Your task to perform on an android device: allow notifications from all sites in the chrome app Image 0: 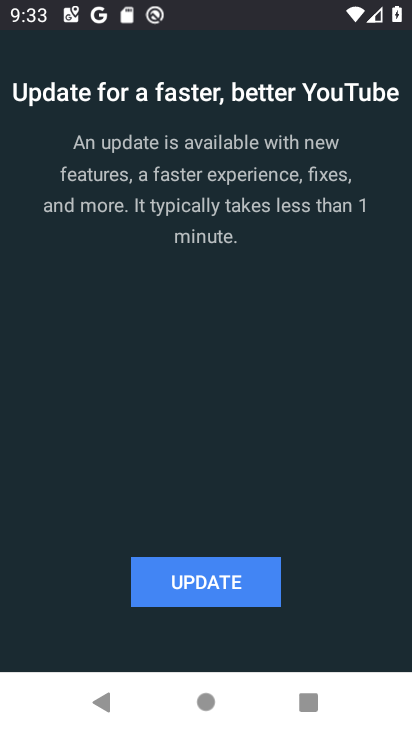
Step 0: press home button
Your task to perform on an android device: allow notifications from all sites in the chrome app Image 1: 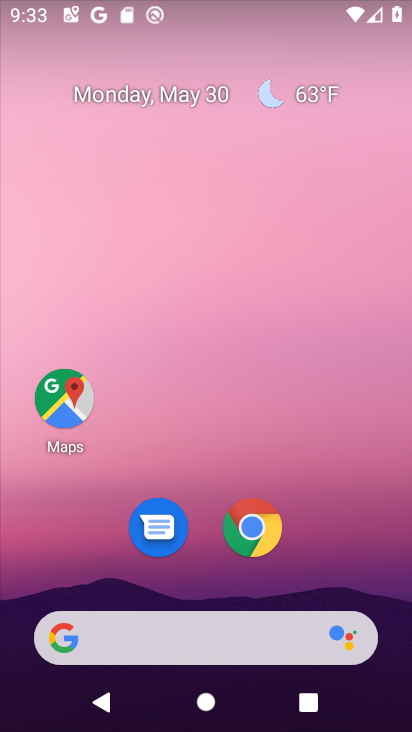
Step 1: click (284, 513)
Your task to perform on an android device: allow notifications from all sites in the chrome app Image 2: 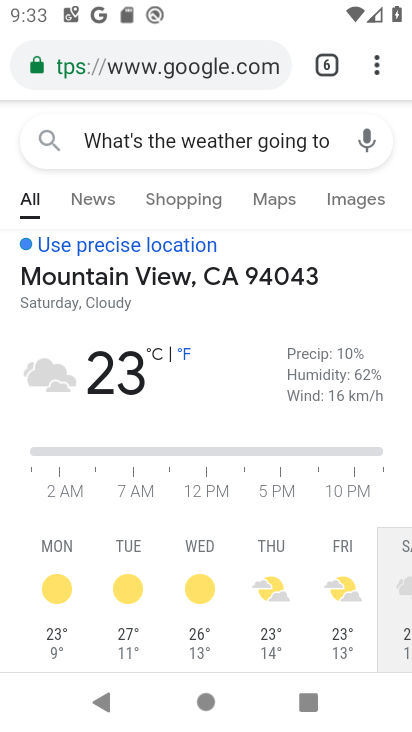
Step 2: click (370, 66)
Your task to perform on an android device: allow notifications from all sites in the chrome app Image 3: 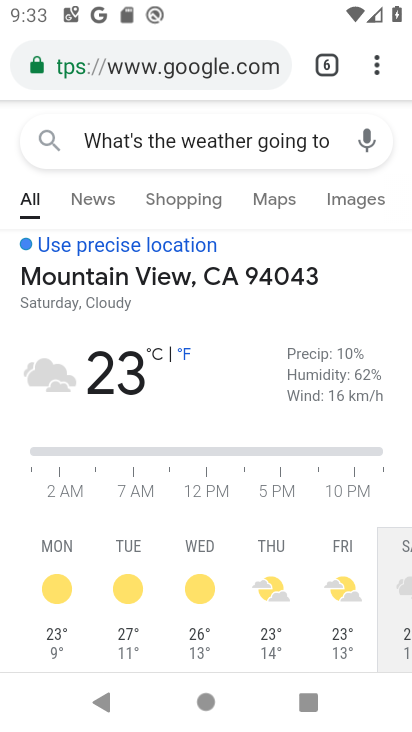
Step 3: click (382, 69)
Your task to perform on an android device: allow notifications from all sites in the chrome app Image 4: 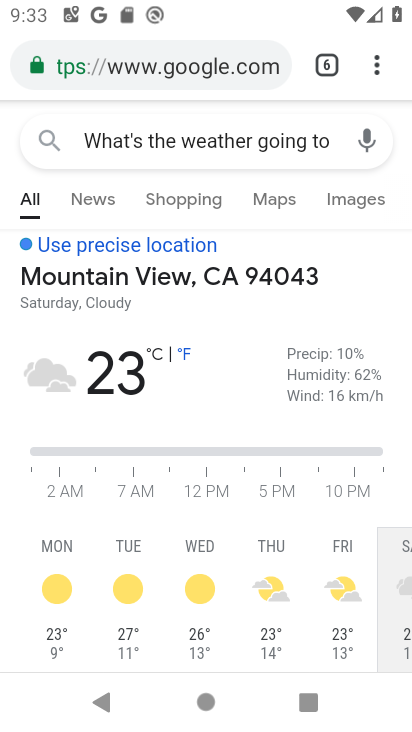
Step 4: click (382, 71)
Your task to perform on an android device: allow notifications from all sites in the chrome app Image 5: 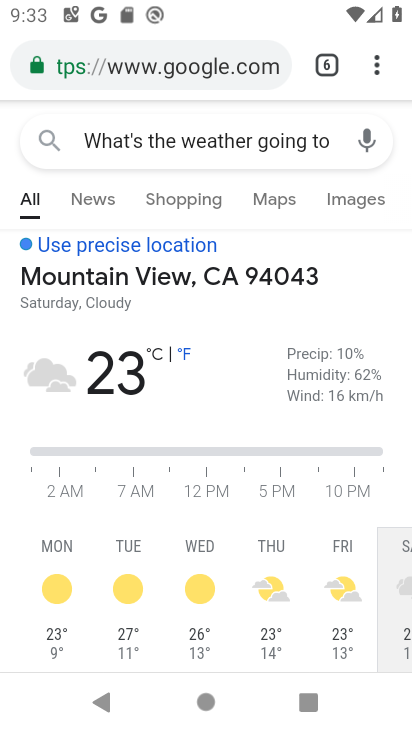
Step 5: click (382, 65)
Your task to perform on an android device: allow notifications from all sites in the chrome app Image 6: 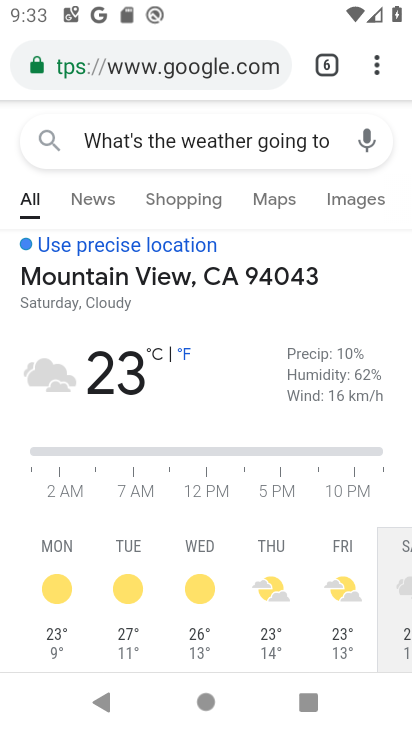
Step 6: click (376, 68)
Your task to perform on an android device: allow notifications from all sites in the chrome app Image 7: 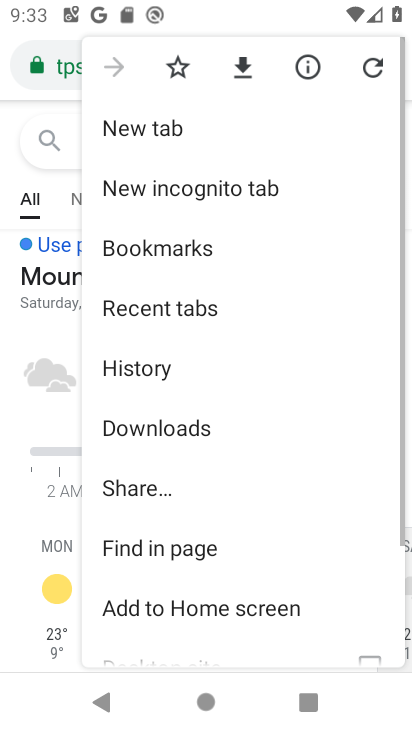
Step 7: drag from (216, 528) to (272, 224)
Your task to perform on an android device: allow notifications from all sites in the chrome app Image 8: 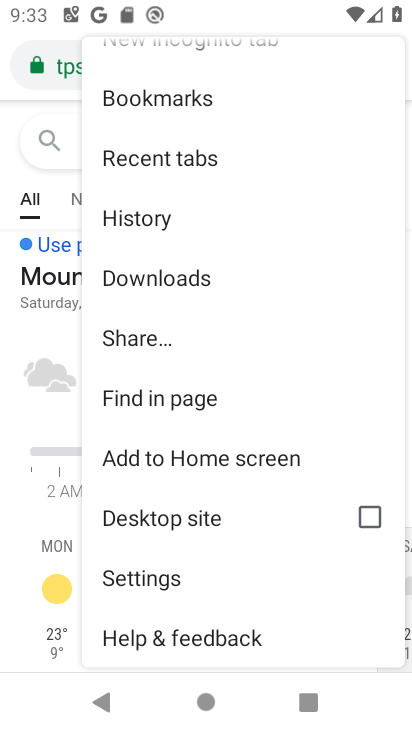
Step 8: click (162, 578)
Your task to perform on an android device: allow notifications from all sites in the chrome app Image 9: 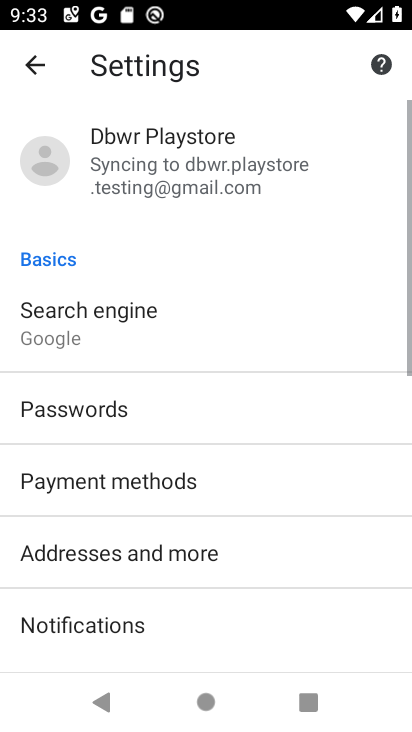
Step 9: drag from (158, 615) to (217, 240)
Your task to perform on an android device: allow notifications from all sites in the chrome app Image 10: 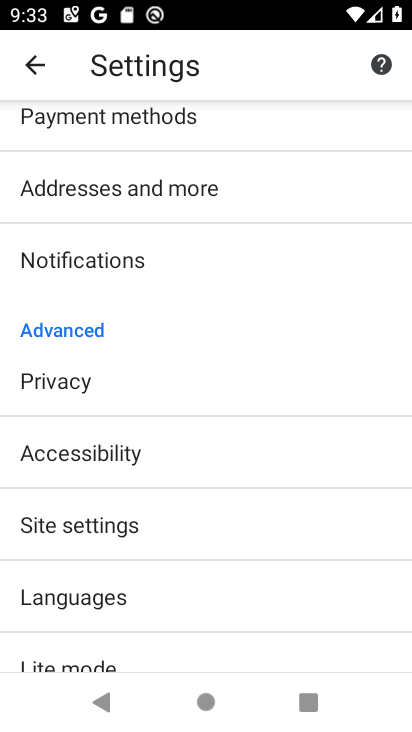
Step 10: click (128, 518)
Your task to perform on an android device: allow notifications from all sites in the chrome app Image 11: 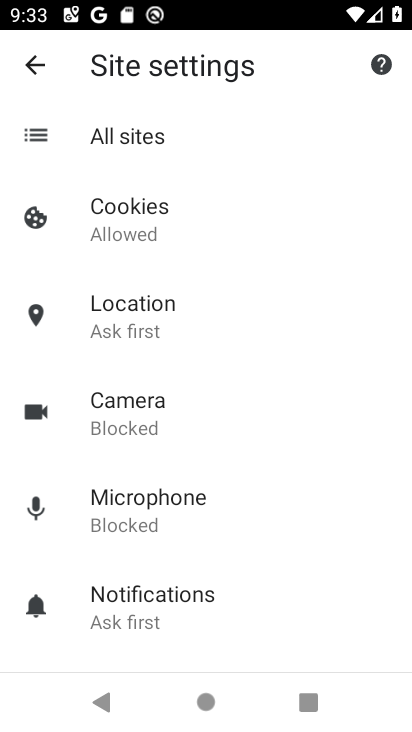
Step 11: click (157, 214)
Your task to perform on an android device: allow notifications from all sites in the chrome app Image 12: 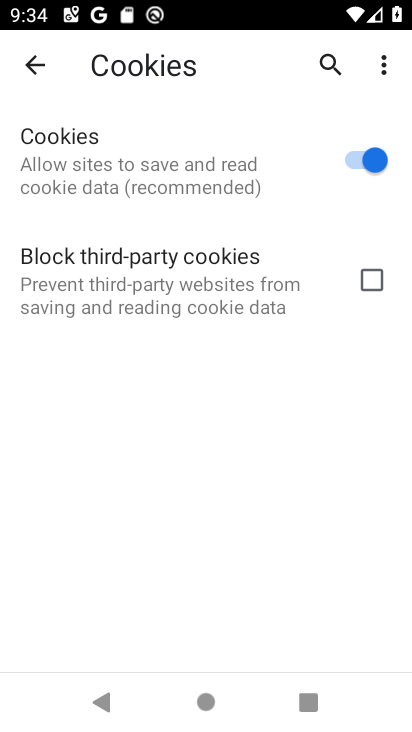
Step 12: click (49, 53)
Your task to perform on an android device: allow notifications from all sites in the chrome app Image 13: 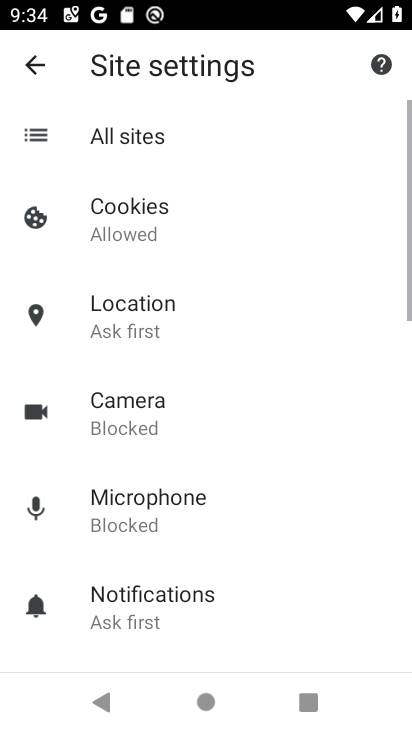
Step 13: task complete